Your task to perform on an android device: Search for vegetarian restaurants on Maps Image 0: 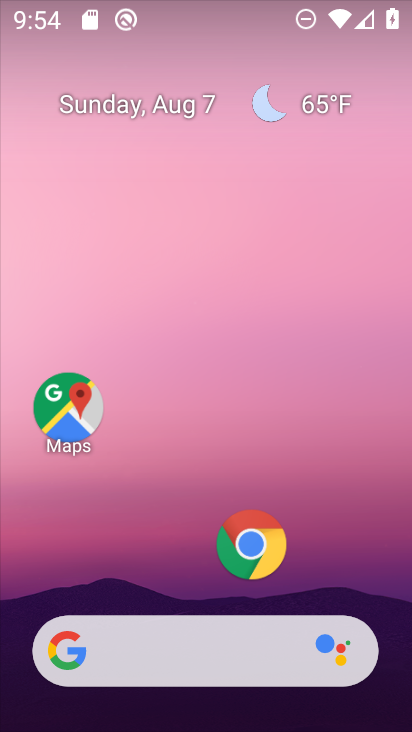
Step 0: drag from (188, 589) to (291, 26)
Your task to perform on an android device: Search for vegetarian restaurants on Maps Image 1: 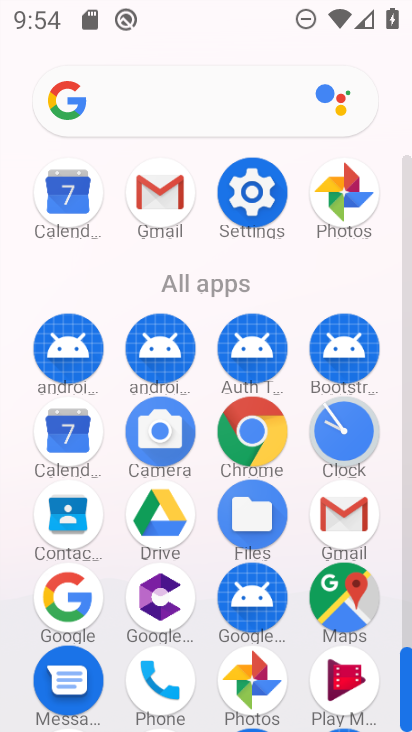
Step 1: click (328, 595)
Your task to perform on an android device: Search for vegetarian restaurants on Maps Image 2: 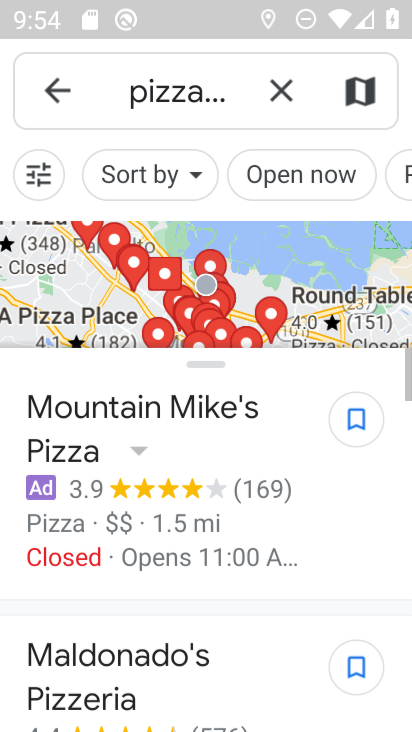
Step 2: click (56, 95)
Your task to perform on an android device: Search for vegetarian restaurants on Maps Image 3: 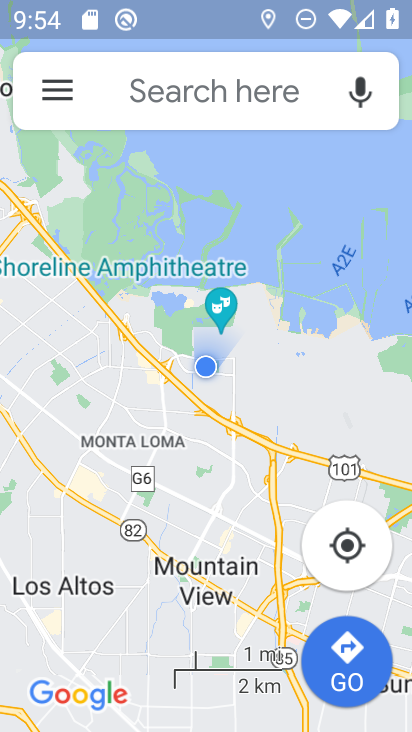
Step 3: click (227, 98)
Your task to perform on an android device: Search for vegetarian restaurants on Maps Image 4: 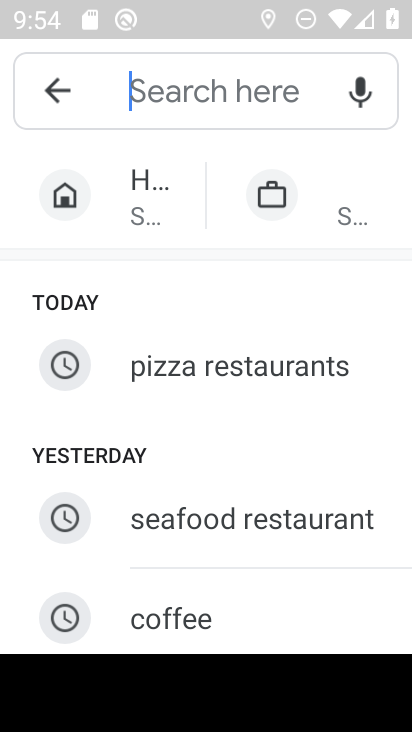
Step 4: type "vegetarian restaurants"
Your task to perform on an android device: Search for vegetarian restaurants on Maps Image 5: 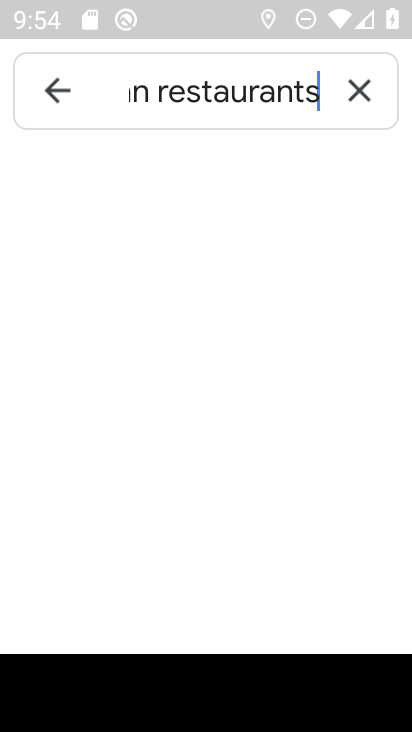
Step 5: type ""
Your task to perform on an android device: Search for vegetarian restaurants on Maps Image 6: 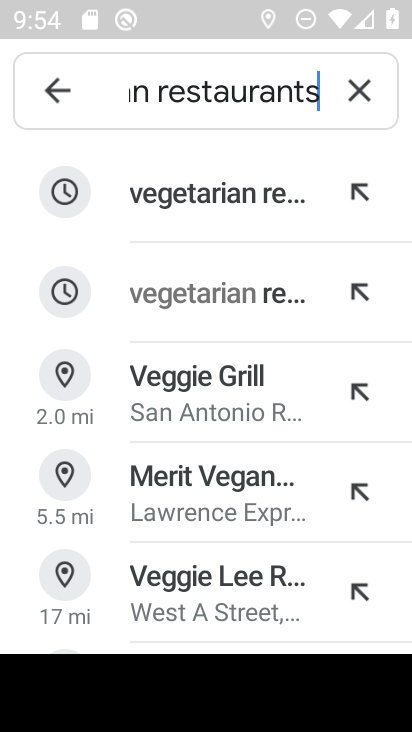
Step 6: click (150, 188)
Your task to perform on an android device: Search for vegetarian restaurants on Maps Image 7: 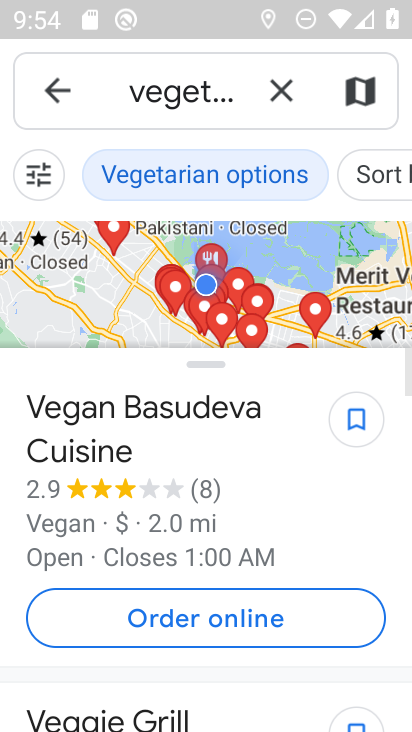
Step 7: task complete